Your task to perform on an android device: Go to wifi settings Image 0: 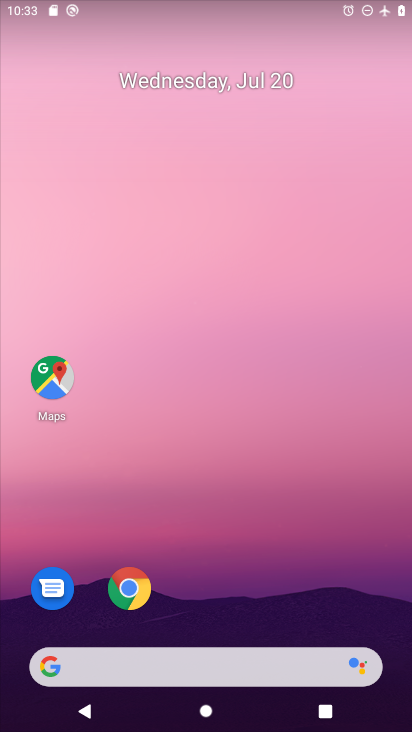
Step 0: drag from (134, 16) to (196, 564)
Your task to perform on an android device: Go to wifi settings Image 1: 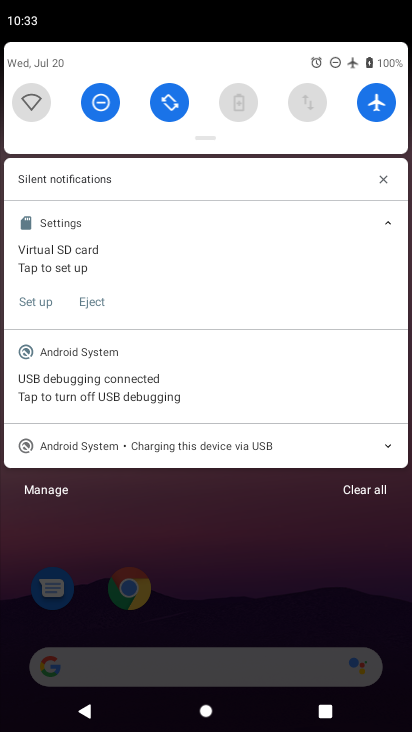
Step 1: click (45, 101)
Your task to perform on an android device: Go to wifi settings Image 2: 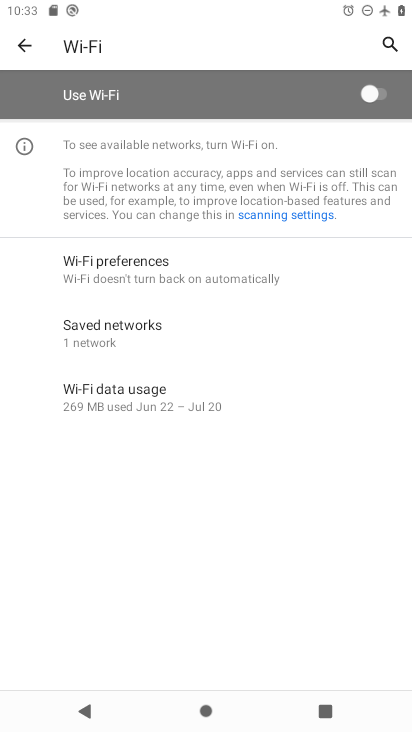
Step 2: task complete